Your task to perform on an android device: toggle notification dots Image 0: 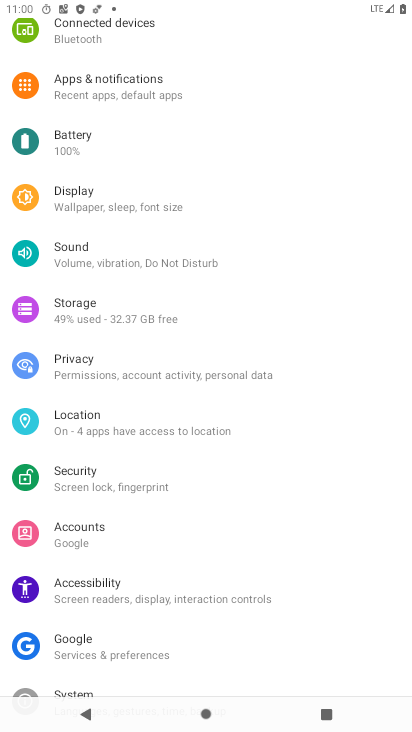
Step 0: click (237, 95)
Your task to perform on an android device: toggle notification dots Image 1: 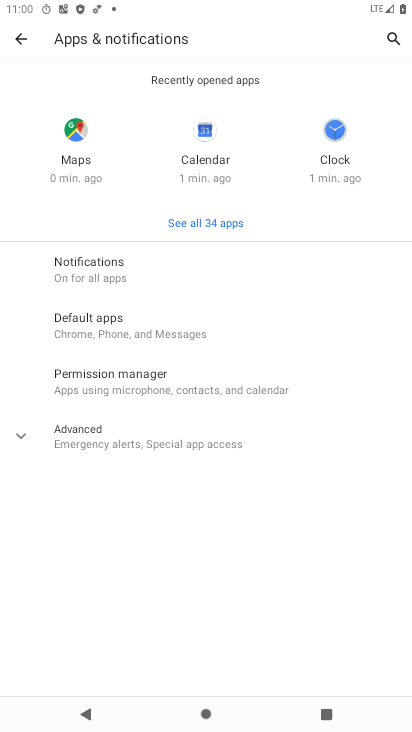
Step 1: click (170, 258)
Your task to perform on an android device: toggle notification dots Image 2: 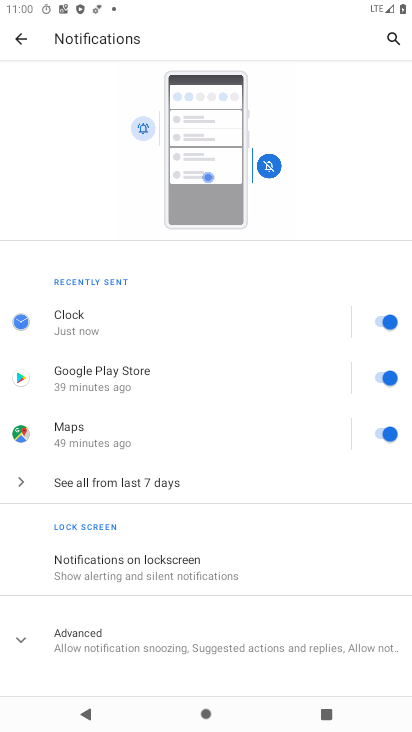
Step 2: click (202, 637)
Your task to perform on an android device: toggle notification dots Image 3: 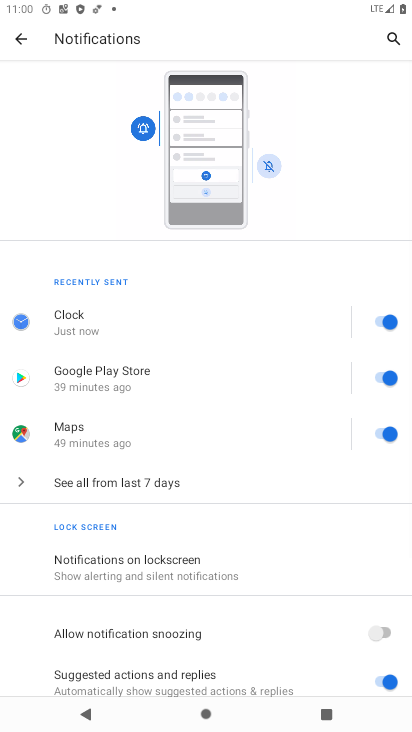
Step 3: drag from (202, 637) to (256, 314)
Your task to perform on an android device: toggle notification dots Image 4: 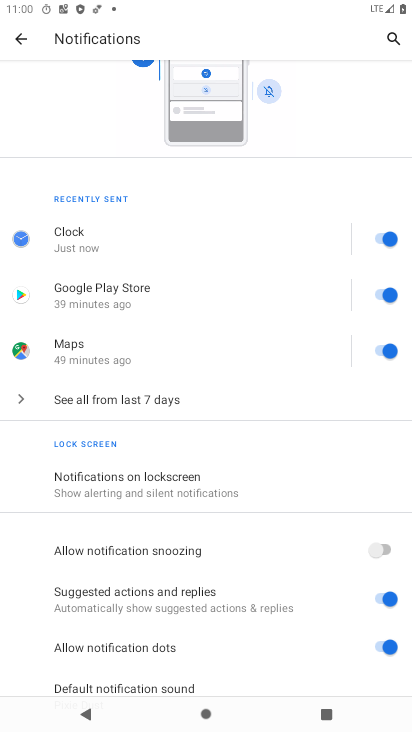
Step 4: click (387, 654)
Your task to perform on an android device: toggle notification dots Image 5: 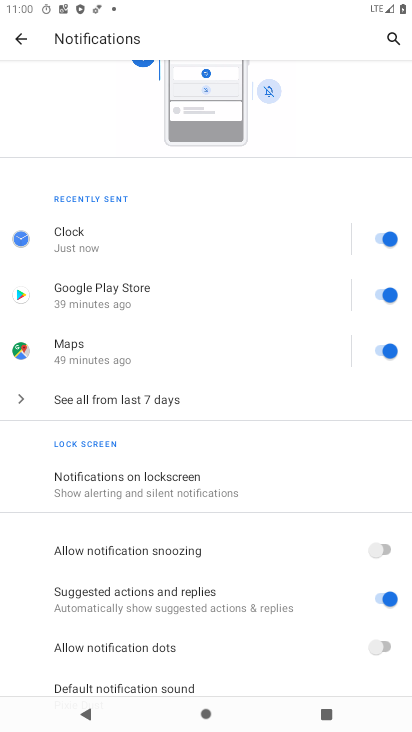
Step 5: task complete